Your task to perform on an android device: Open Chrome and go to settings Image 0: 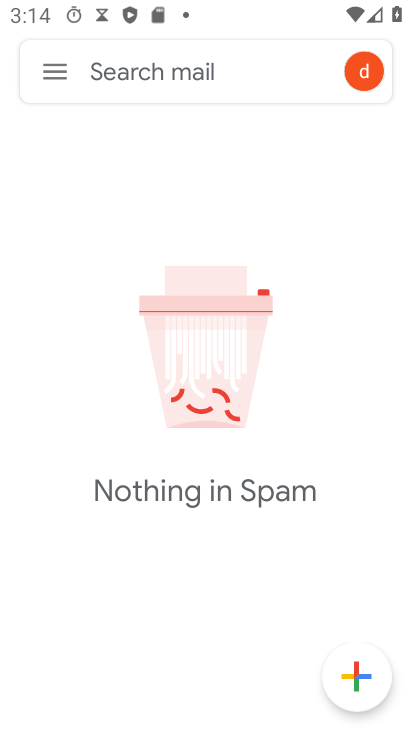
Step 0: press back button
Your task to perform on an android device: Open Chrome and go to settings Image 1: 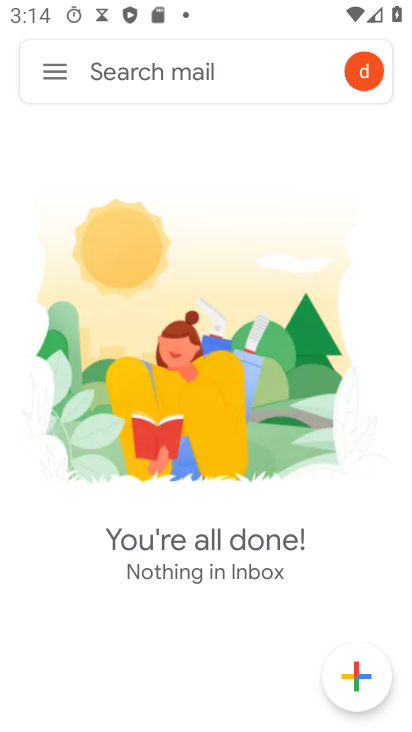
Step 1: press home button
Your task to perform on an android device: Open Chrome and go to settings Image 2: 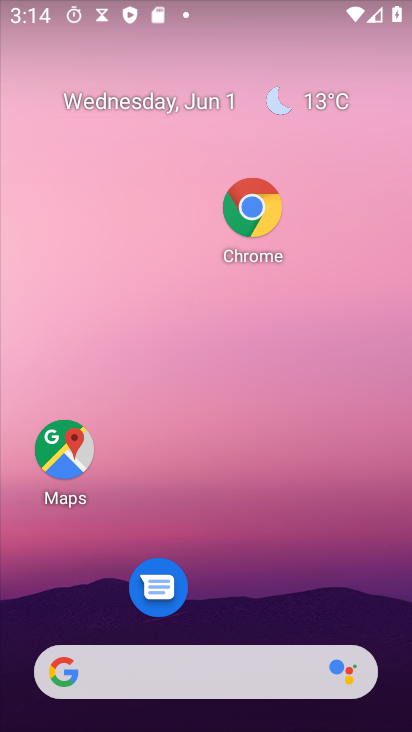
Step 2: drag from (255, 699) to (194, 174)
Your task to perform on an android device: Open Chrome and go to settings Image 3: 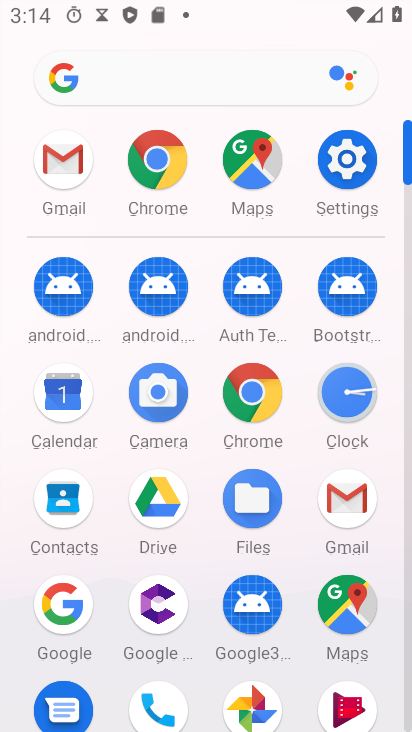
Step 3: click (155, 168)
Your task to perform on an android device: Open Chrome and go to settings Image 4: 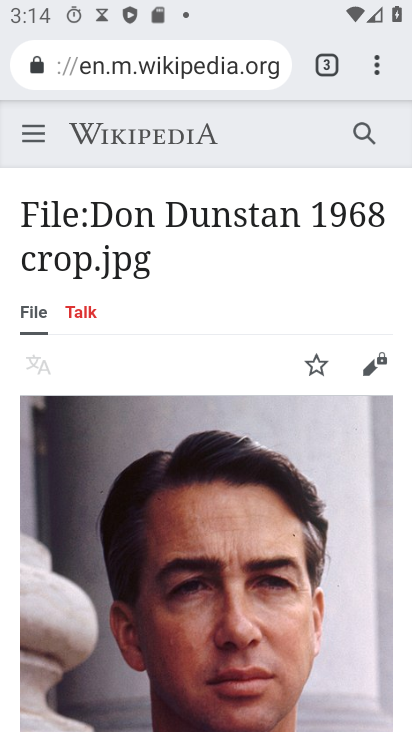
Step 4: press back button
Your task to perform on an android device: Open Chrome and go to settings Image 5: 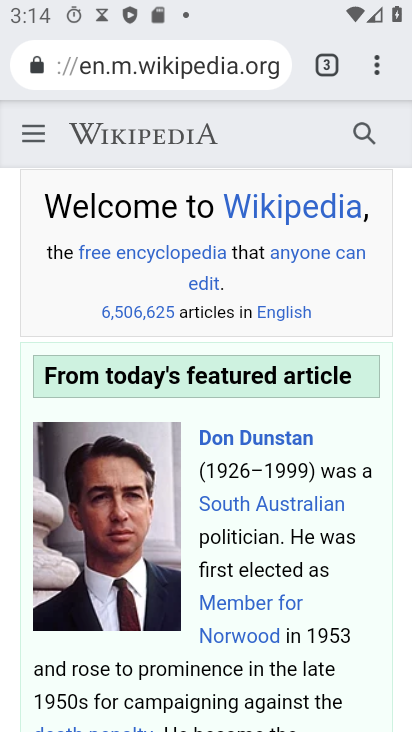
Step 5: drag from (379, 61) to (137, 641)
Your task to perform on an android device: Open Chrome and go to settings Image 6: 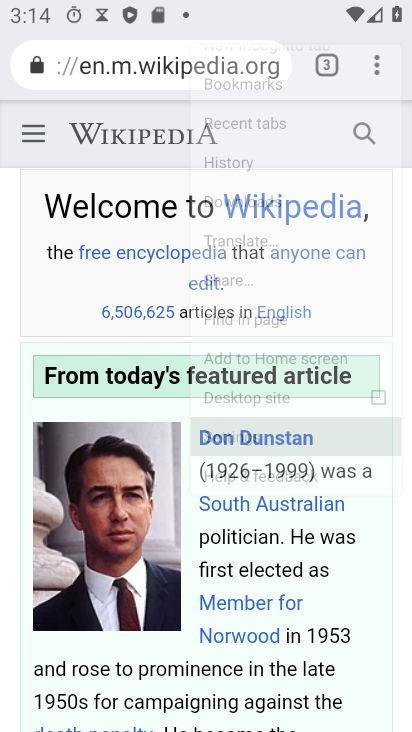
Step 6: click (138, 642)
Your task to perform on an android device: Open Chrome and go to settings Image 7: 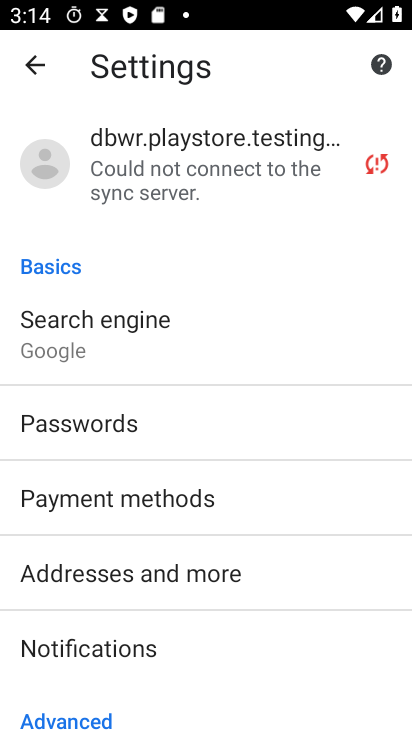
Step 7: task complete